Your task to perform on an android device: Open display settings Image 0: 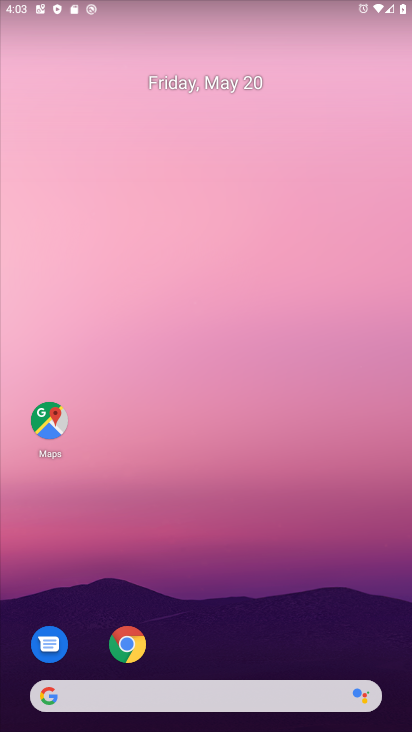
Step 0: drag from (231, 604) to (181, 196)
Your task to perform on an android device: Open display settings Image 1: 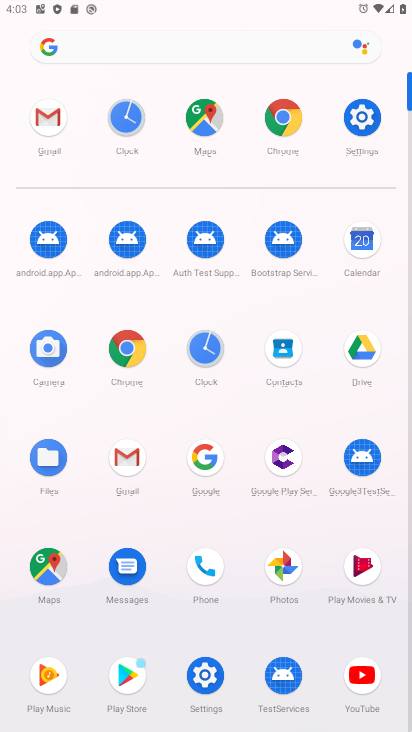
Step 1: click (361, 128)
Your task to perform on an android device: Open display settings Image 2: 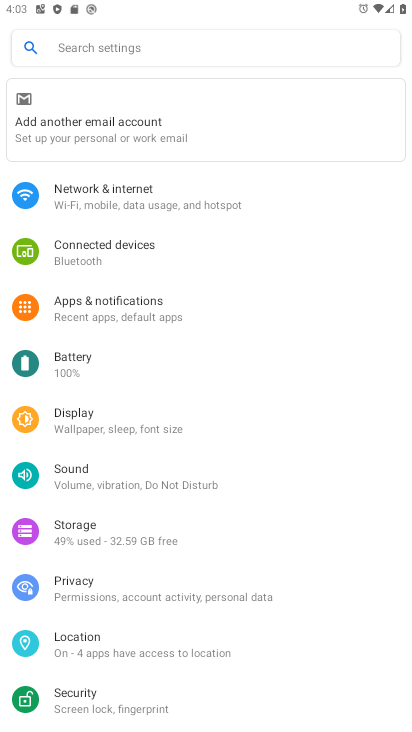
Step 2: click (126, 431)
Your task to perform on an android device: Open display settings Image 3: 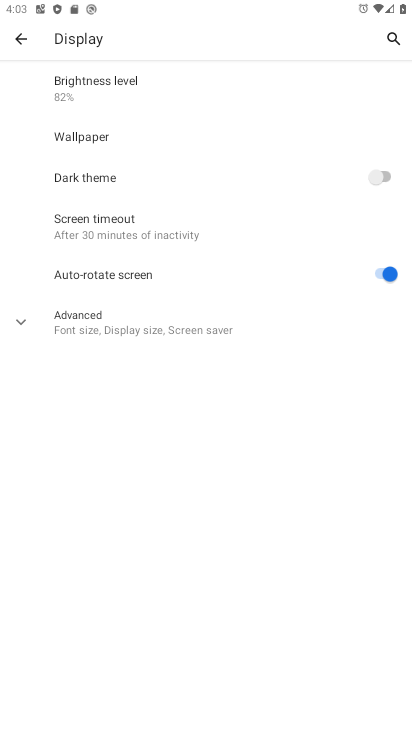
Step 3: task complete